Your task to perform on an android device: Go to accessibility settings Image 0: 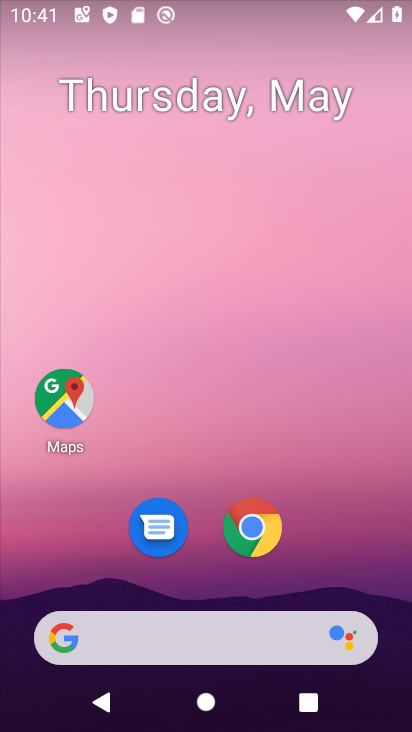
Step 0: drag from (347, 534) to (318, 132)
Your task to perform on an android device: Go to accessibility settings Image 1: 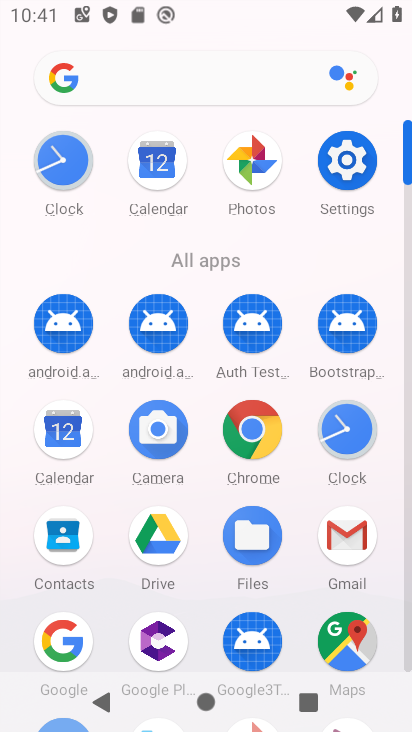
Step 1: click (349, 157)
Your task to perform on an android device: Go to accessibility settings Image 2: 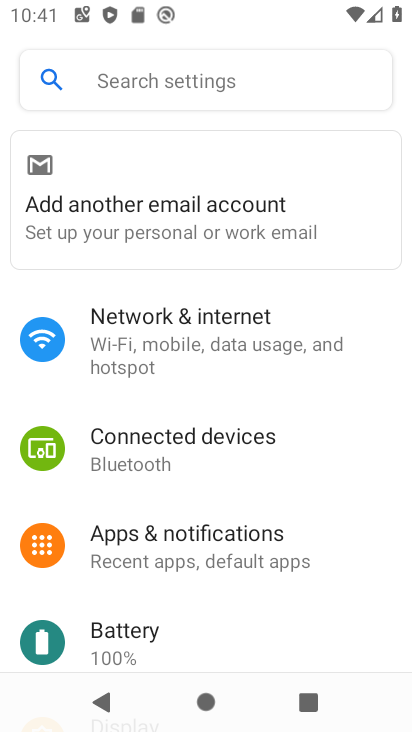
Step 2: drag from (218, 586) to (272, 195)
Your task to perform on an android device: Go to accessibility settings Image 3: 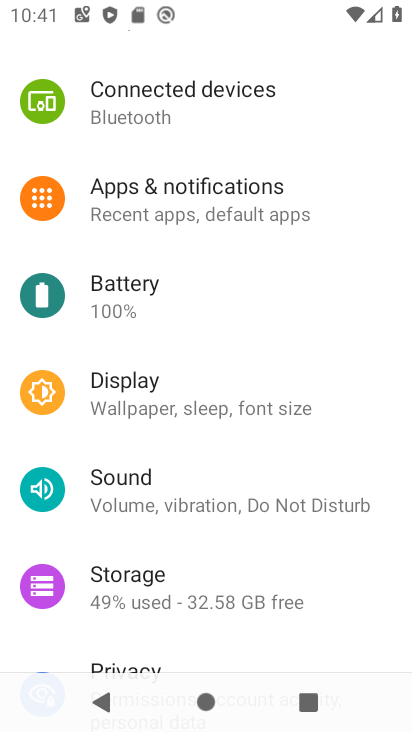
Step 3: drag from (130, 621) to (186, 204)
Your task to perform on an android device: Go to accessibility settings Image 4: 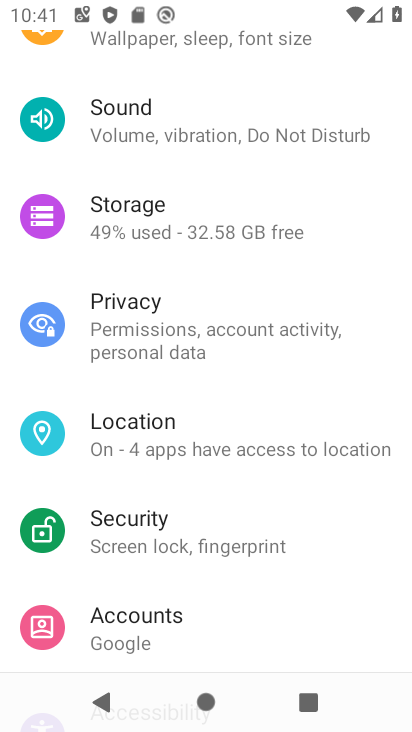
Step 4: drag from (153, 620) to (267, 272)
Your task to perform on an android device: Go to accessibility settings Image 5: 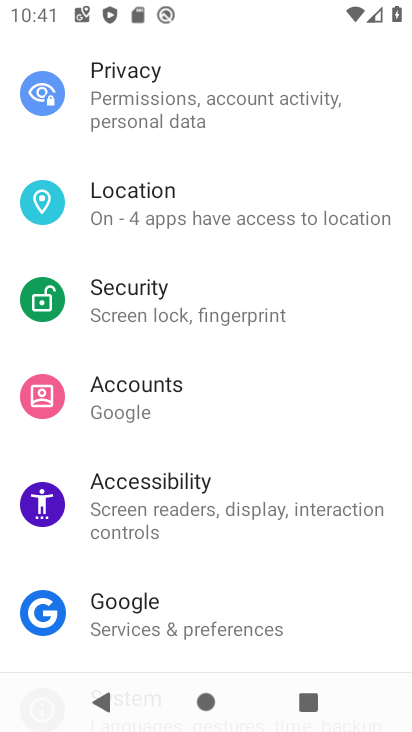
Step 5: click (190, 516)
Your task to perform on an android device: Go to accessibility settings Image 6: 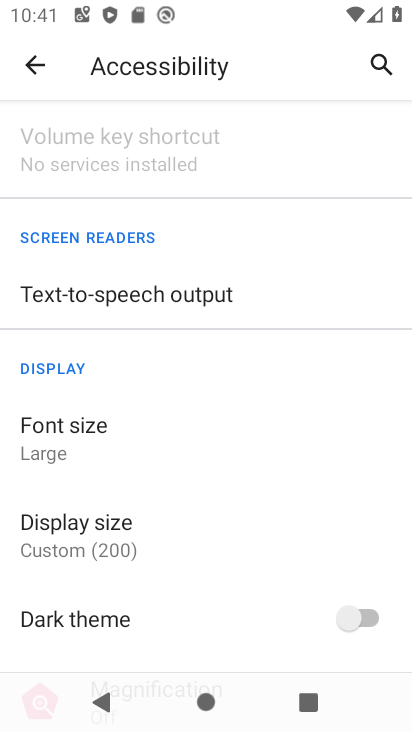
Step 6: task complete